Your task to perform on an android device: Open the map Image 0: 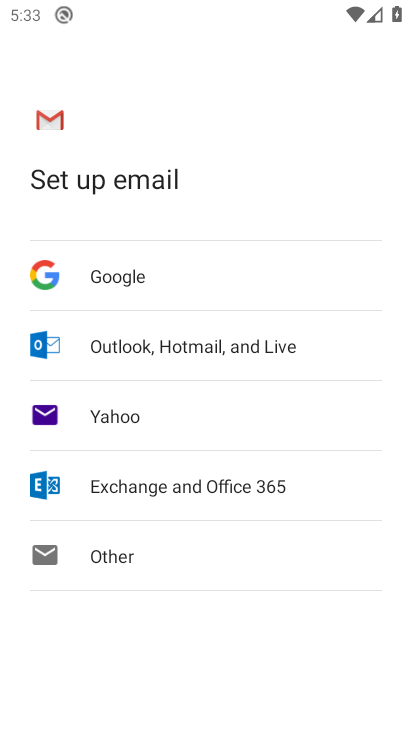
Step 0: drag from (208, 618) to (139, 150)
Your task to perform on an android device: Open the map Image 1: 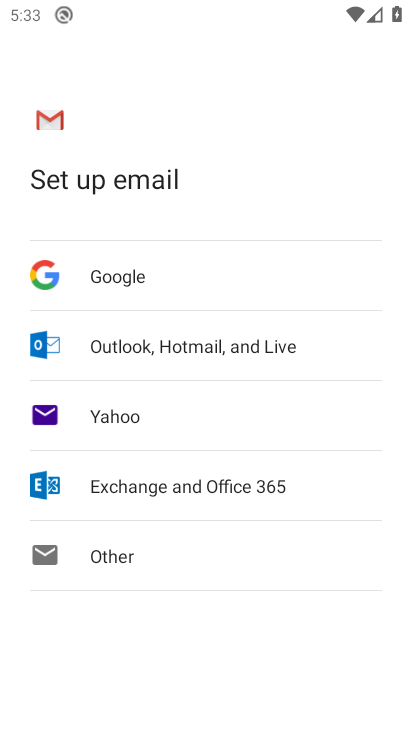
Step 1: press back button
Your task to perform on an android device: Open the map Image 2: 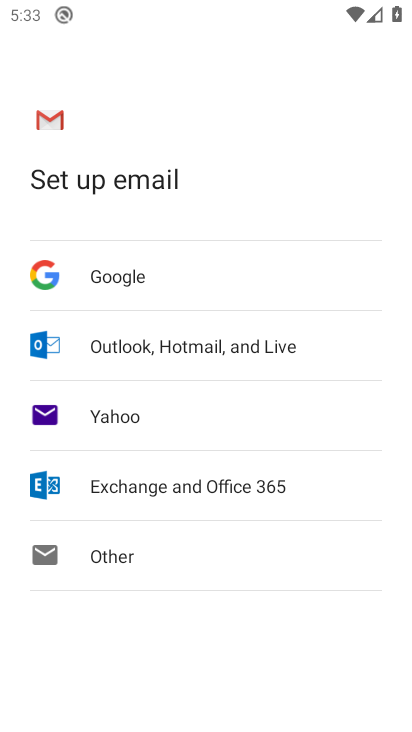
Step 2: press back button
Your task to perform on an android device: Open the map Image 3: 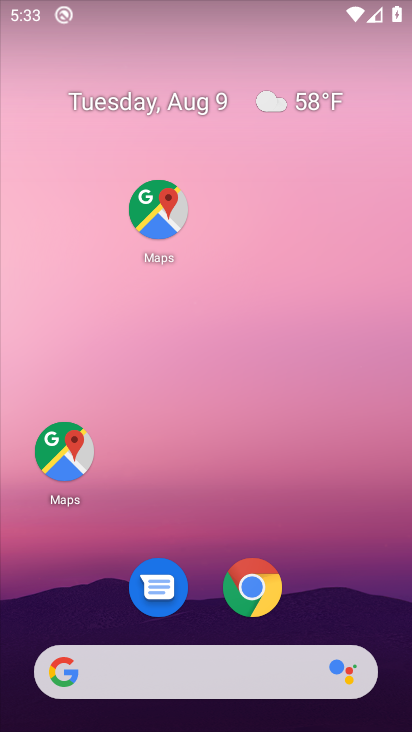
Step 3: click (163, 214)
Your task to perform on an android device: Open the map Image 4: 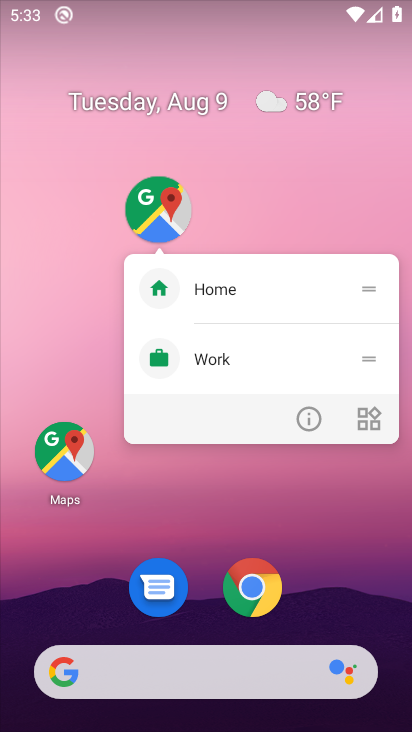
Step 4: click (161, 212)
Your task to perform on an android device: Open the map Image 5: 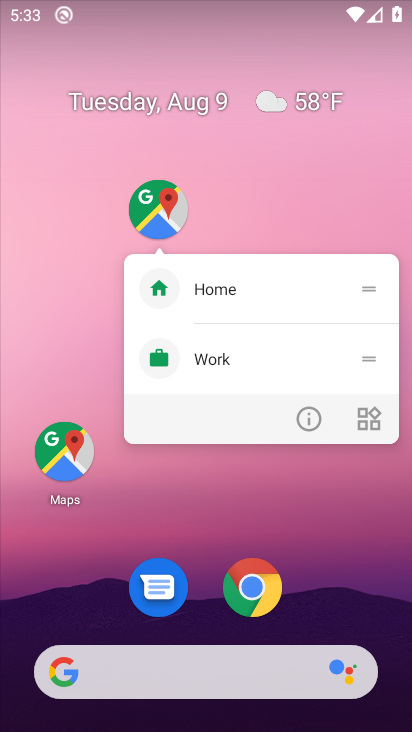
Step 5: click (226, 357)
Your task to perform on an android device: Open the map Image 6: 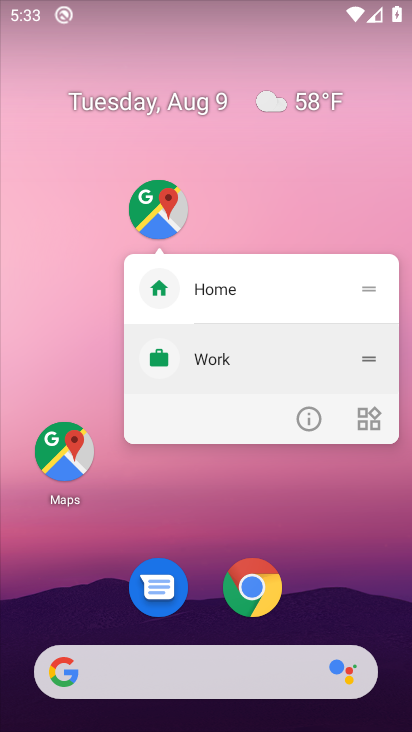
Step 6: click (226, 357)
Your task to perform on an android device: Open the map Image 7: 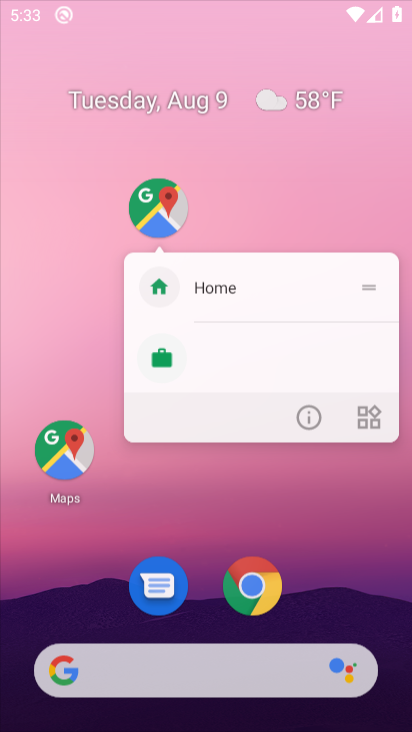
Step 7: click (228, 357)
Your task to perform on an android device: Open the map Image 8: 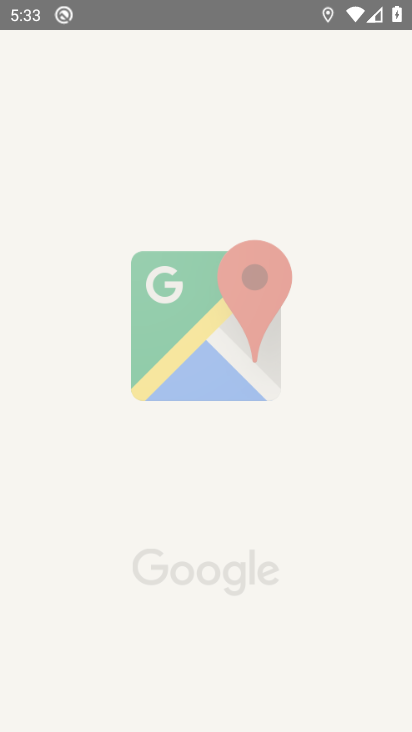
Step 8: click (261, 356)
Your task to perform on an android device: Open the map Image 9: 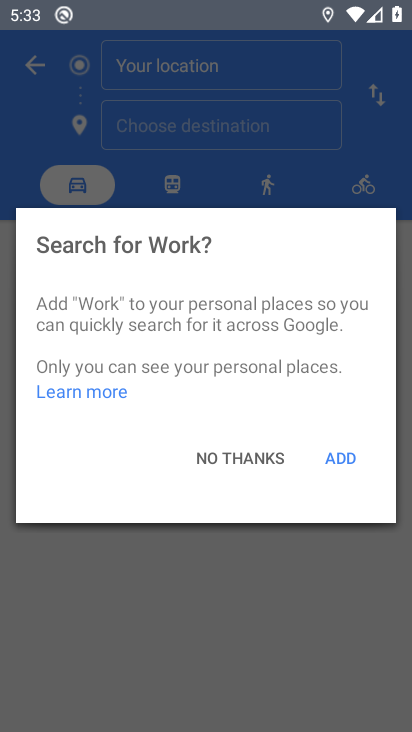
Step 9: task complete